Your task to perform on an android device: toggle wifi Image 0: 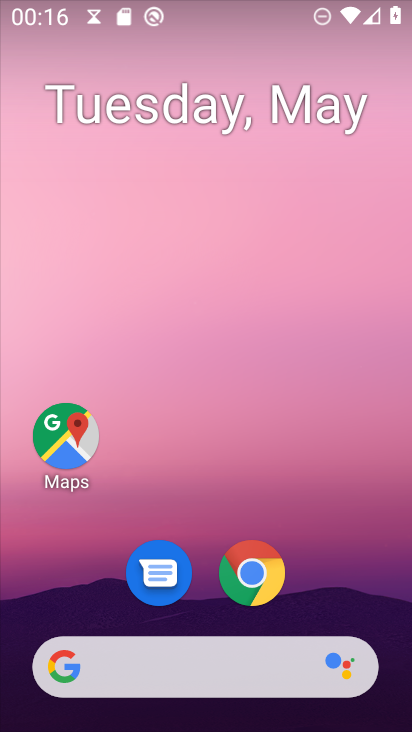
Step 0: drag from (330, 559) to (232, 21)
Your task to perform on an android device: toggle wifi Image 1: 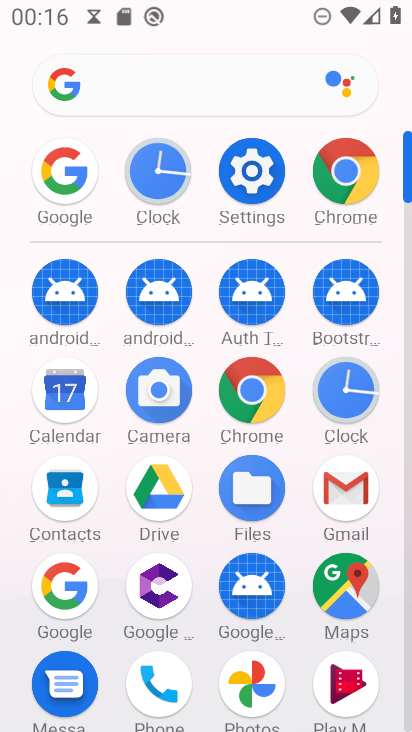
Step 1: click (251, 203)
Your task to perform on an android device: toggle wifi Image 2: 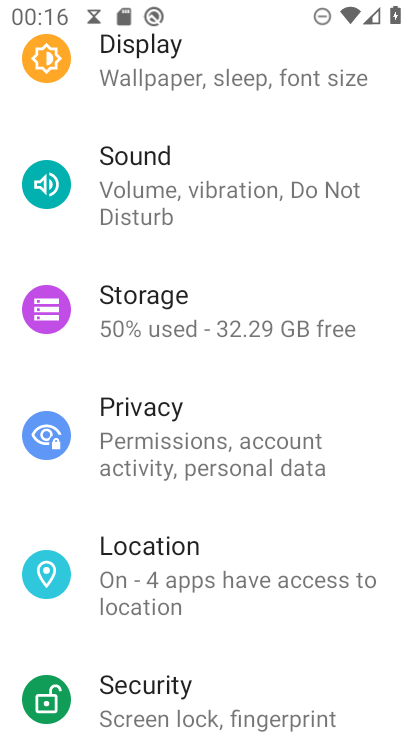
Step 2: drag from (252, 237) to (241, 659)
Your task to perform on an android device: toggle wifi Image 3: 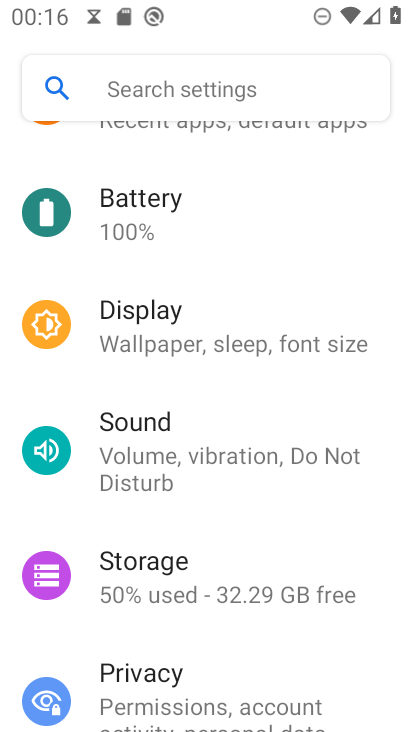
Step 3: drag from (238, 216) to (274, 714)
Your task to perform on an android device: toggle wifi Image 4: 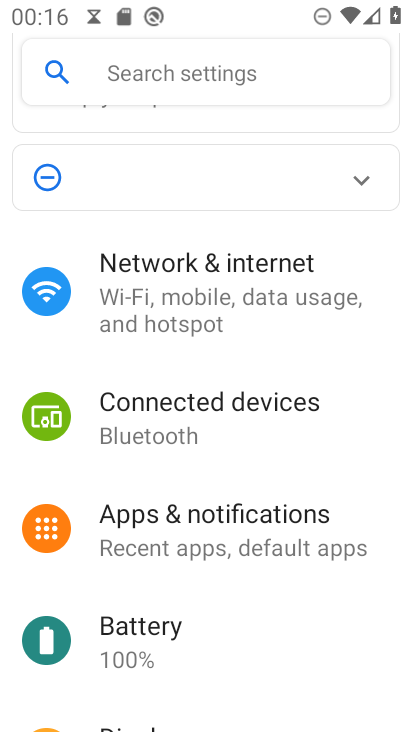
Step 4: drag from (233, 200) to (242, 670)
Your task to perform on an android device: toggle wifi Image 5: 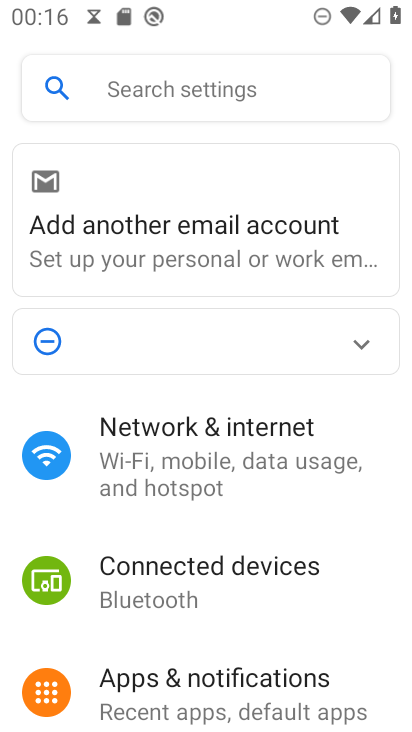
Step 5: click (205, 466)
Your task to perform on an android device: toggle wifi Image 6: 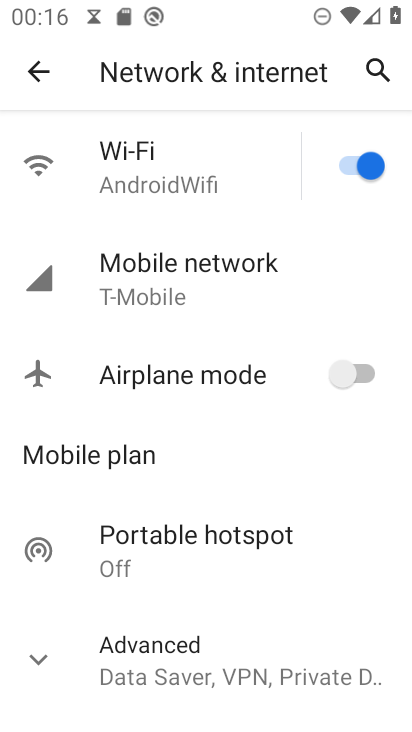
Step 6: click (361, 160)
Your task to perform on an android device: toggle wifi Image 7: 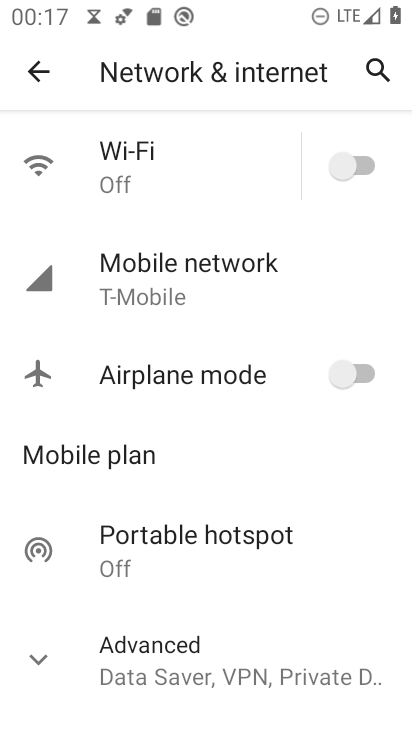
Step 7: task complete